Your task to perform on an android device: make emails show in primary in the gmail app Image 0: 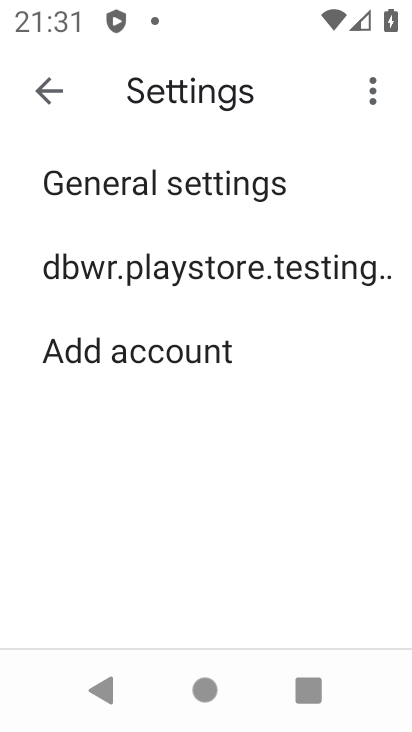
Step 0: press home button
Your task to perform on an android device: make emails show in primary in the gmail app Image 1: 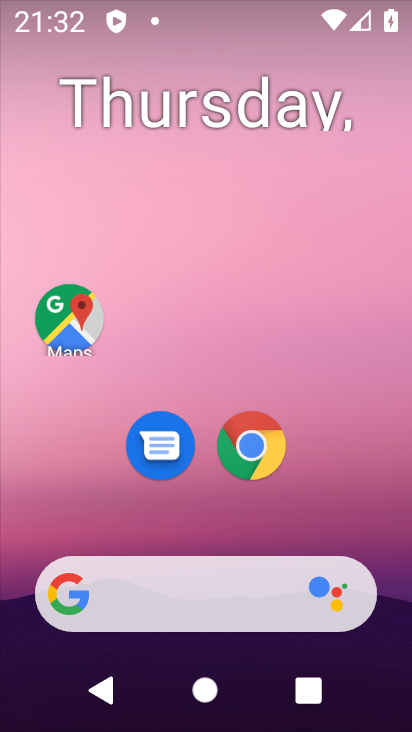
Step 1: drag from (14, 645) to (279, 155)
Your task to perform on an android device: make emails show in primary in the gmail app Image 2: 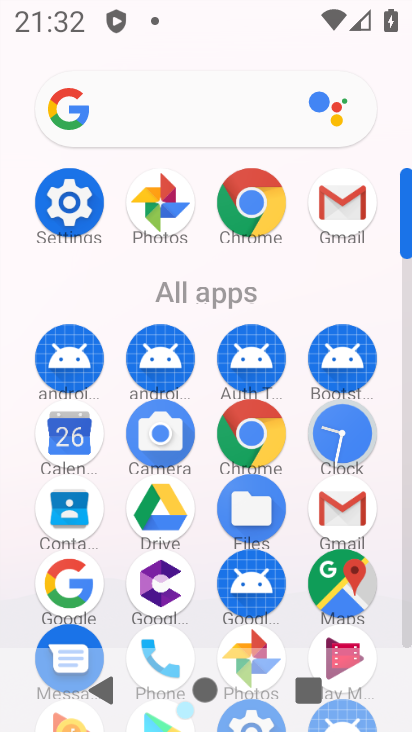
Step 2: click (330, 212)
Your task to perform on an android device: make emails show in primary in the gmail app Image 3: 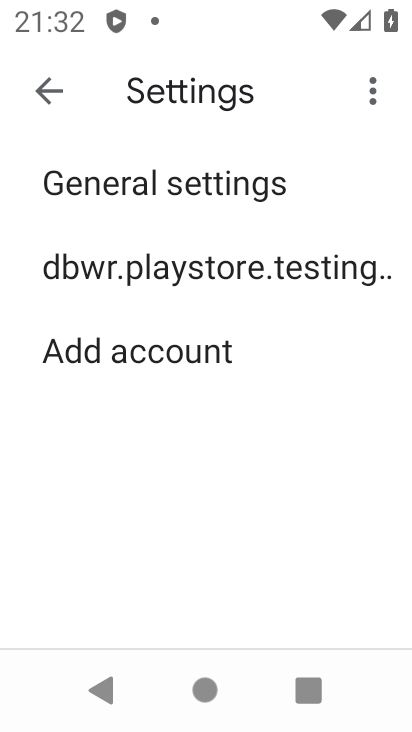
Step 3: click (46, 91)
Your task to perform on an android device: make emails show in primary in the gmail app Image 4: 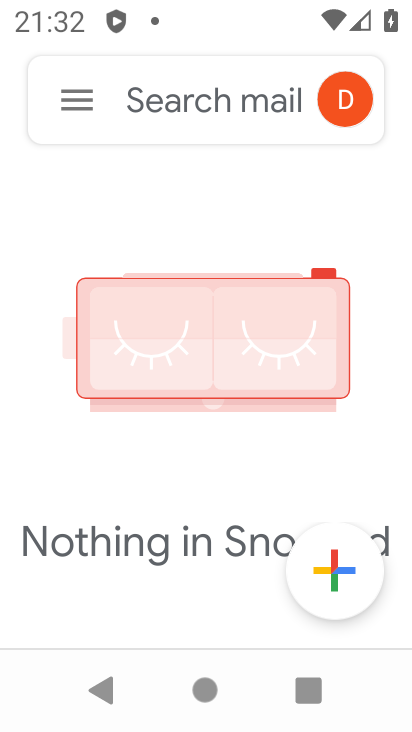
Step 4: click (49, 92)
Your task to perform on an android device: make emails show in primary in the gmail app Image 5: 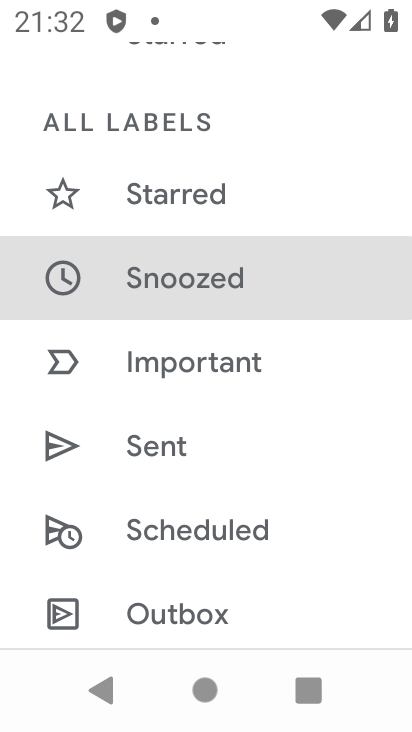
Step 5: drag from (84, 157) to (98, 619)
Your task to perform on an android device: make emails show in primary in the gmail app Image 6: 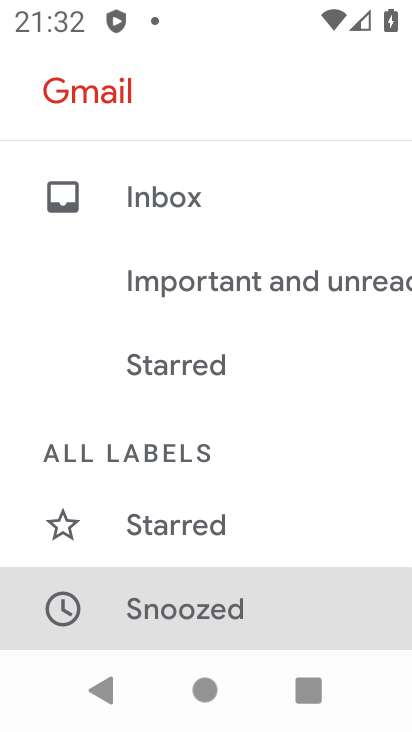
Step 6: drag from (199, 195) to (155, 560)
Your task to perform on an android device: make emails show in primary in the gmail app Image 7: 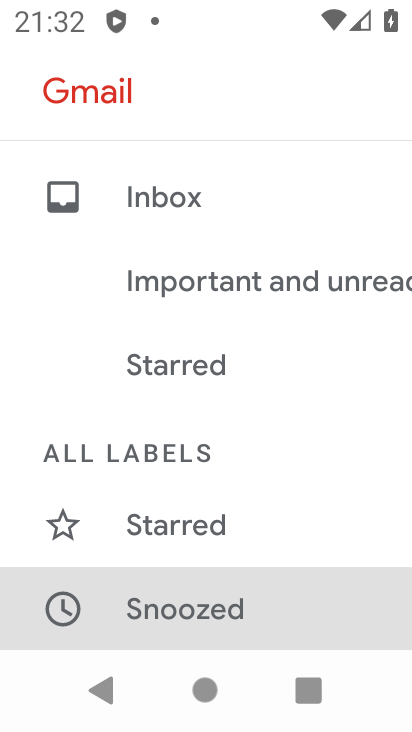
Step 7: click (174, 208)
Your task to perform on an android device: make emails show in primary in the gmail app Image 8: 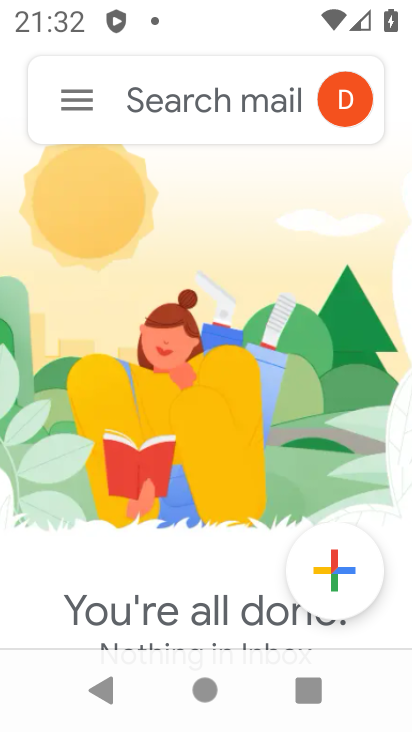
Step 8: task complete